Your task to perform on an android device: turn off airplane mode Image 0: 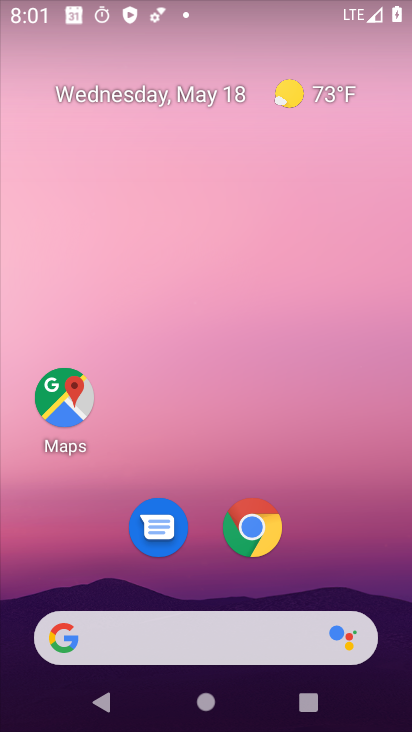
Step 0: drag from (386, 703) to (402, 59)
Your task to perform on an android device: turn off airplane mode Image 1: 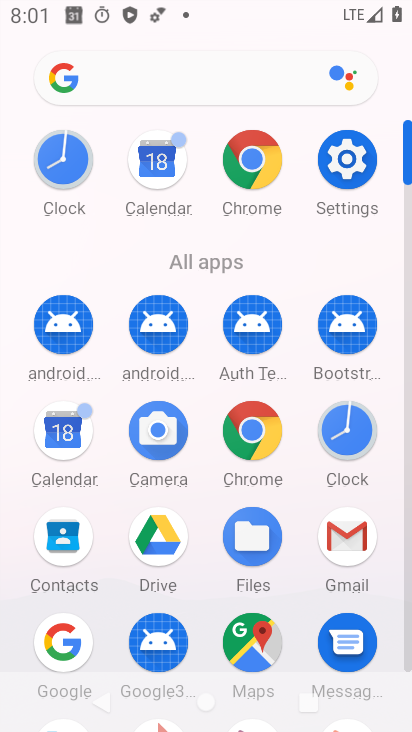
Step 1: click (349, 152)
Your task to perform on an android device: turn off airplane mode Image 2: 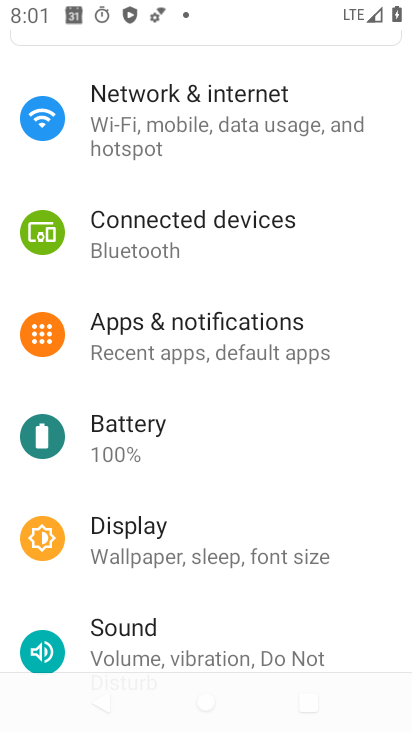
Step 2: click (113, 103)
Your task to perform on an android device: turn off airplane mode Image 3: 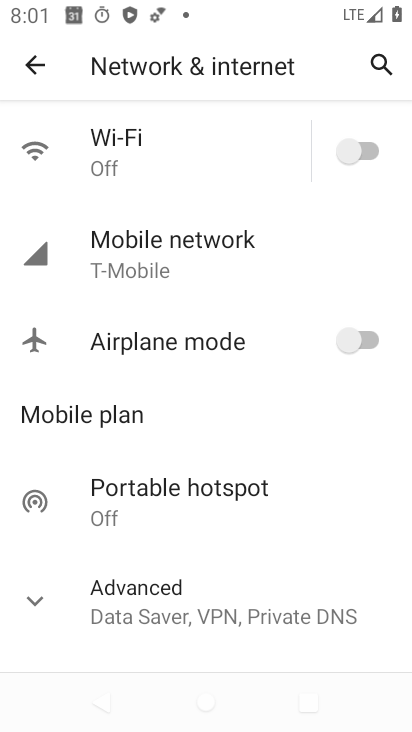
Step 3: click (368, 146)
Your task to perform on an android device: turn off airplane mode Image 4: 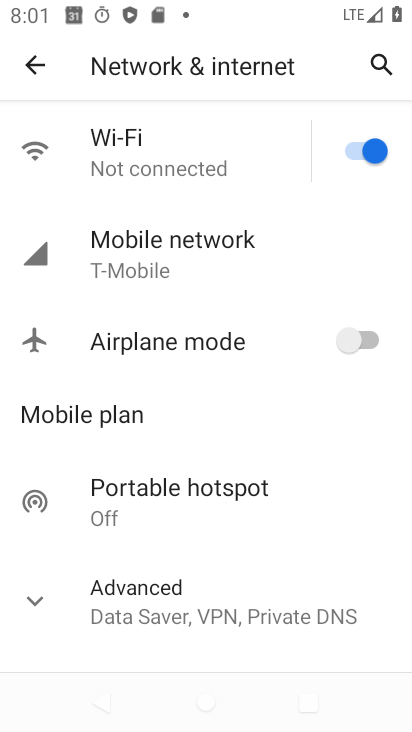
Step 4: click (350, 143)
Your task to perform on an android device: turn off airplane mode Image 5: 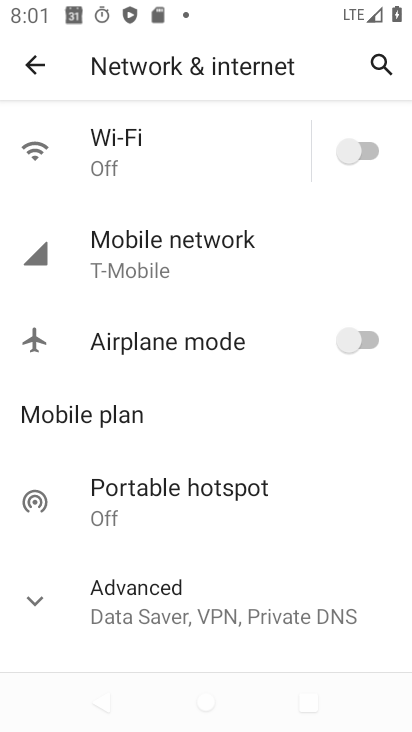
Step 5: click (375, 337)
Your task to perform on an android device: turn off airplane mode Image 6: 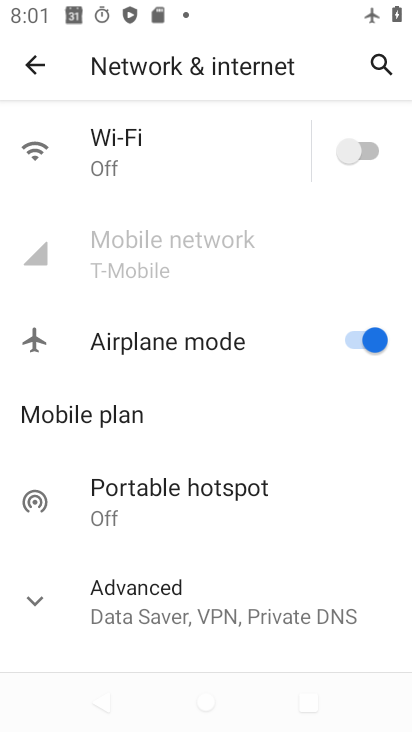
Step 6: task complete